Your task to perform on an android device: change text size in settings app Image 0: 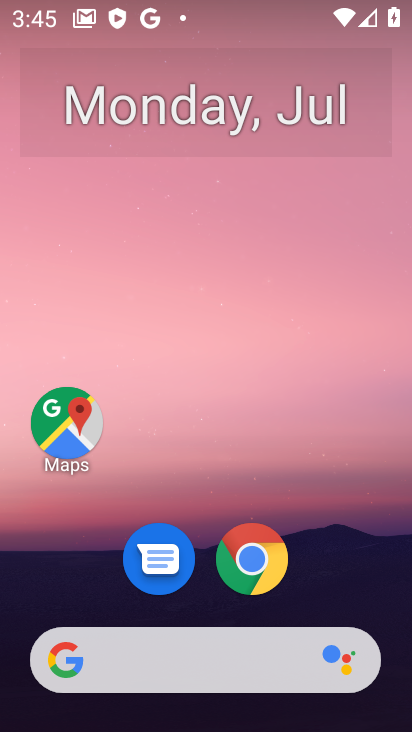
Step 0: drag from (113, 500) to (177, 0)
Your task to perform on an android device: change text size in settings app Image 1: 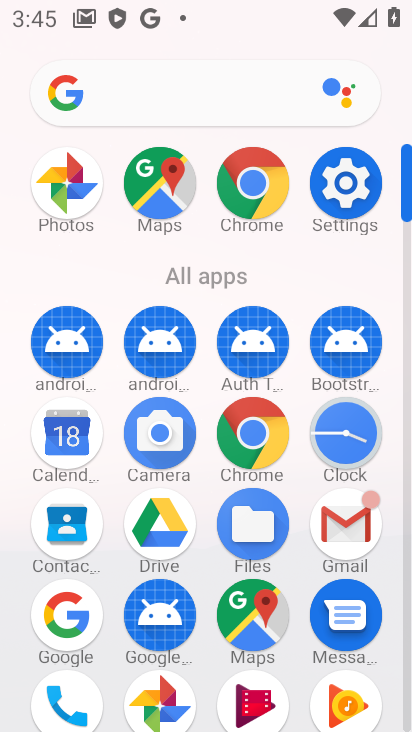
Step 1: click (340, 180)
Your task to perform on an android device: change text size in settings app Image 2: 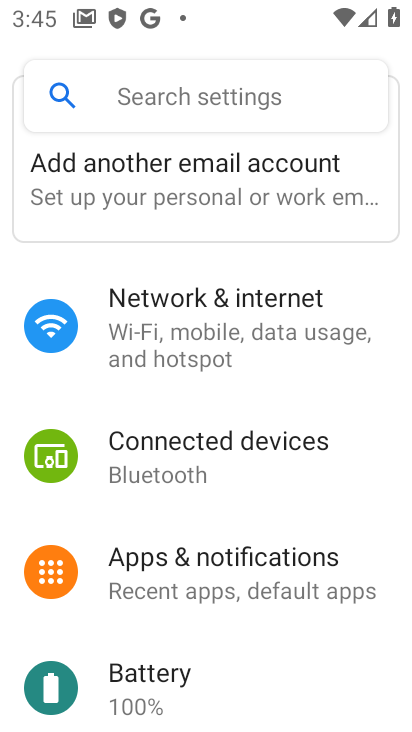
Step 2: click (172, 96)
Your task to perform on an android device: change text size in settings app Image 3: 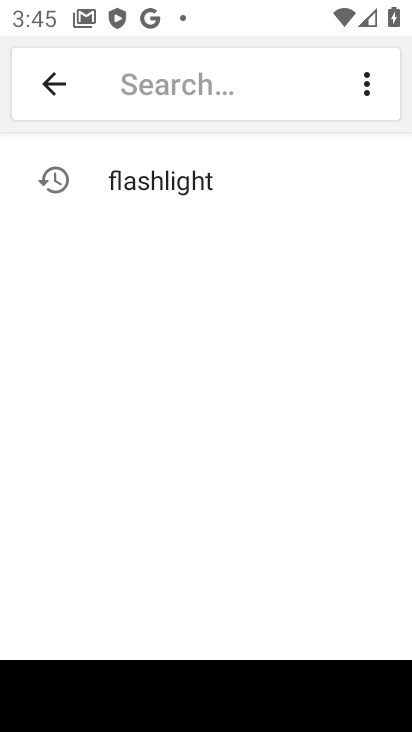
Step 3: click (173, 89)
Your task to perform on an android device: change text size in settings app Image 4: 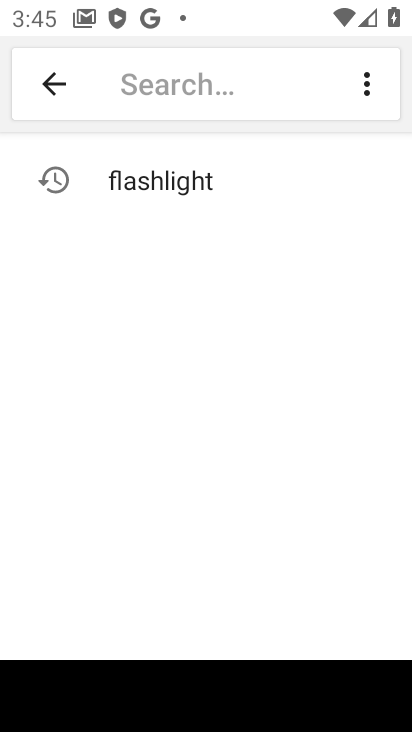
Step 4: type "text size"
Your task to perform on an android device: change text size in settings app Image 5: 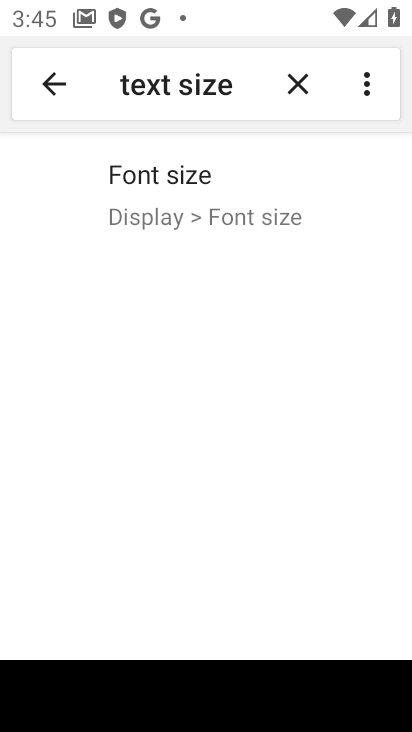
Step 5: click (185, 201)
Your task to perform on an android device: change text size in settings app Image 6: 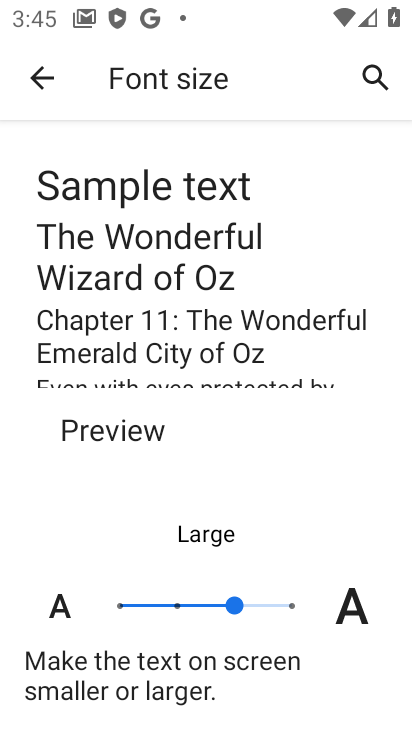
Step 6: task complete